Your task to perform on an android device: Open Google Image 0: 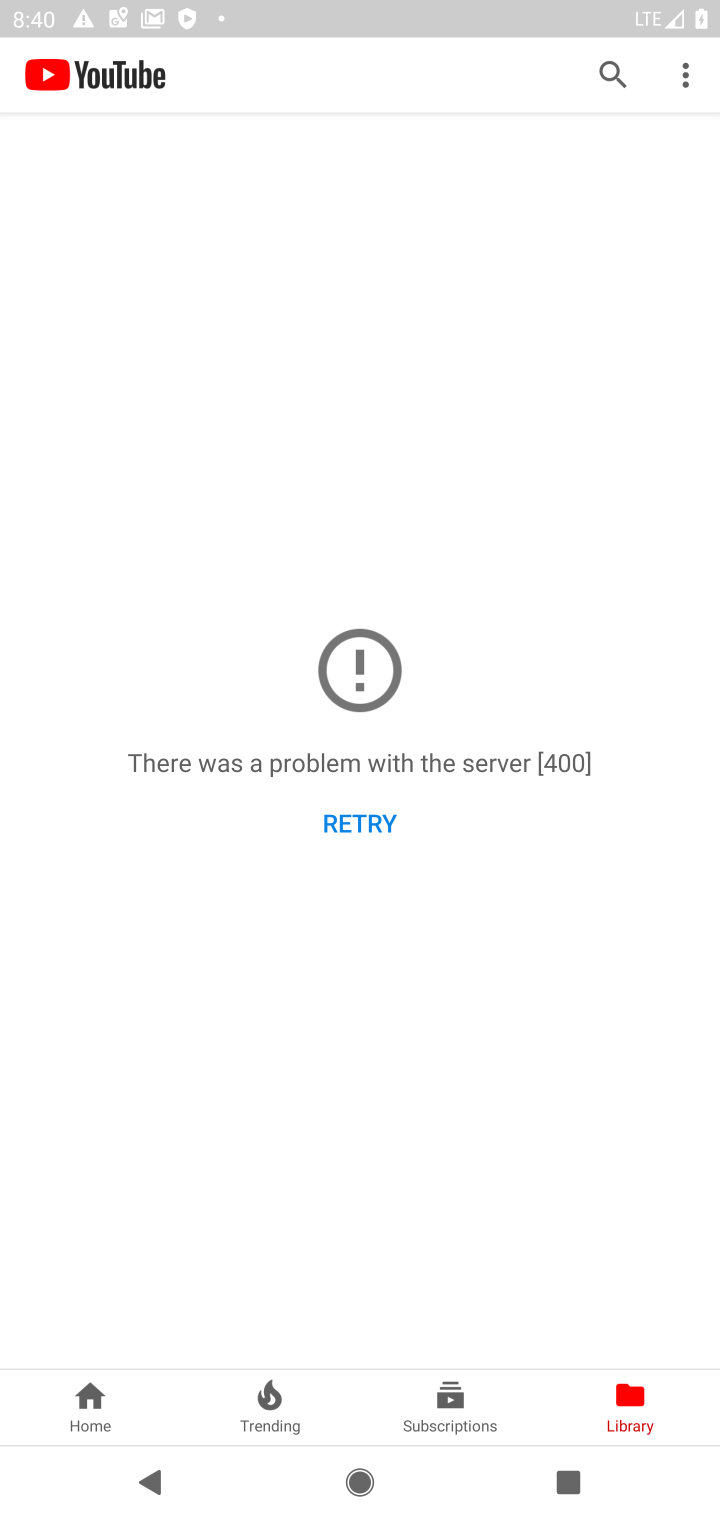
Step 0: press home button
Your task to perform on an android device: Open Google Image 1: 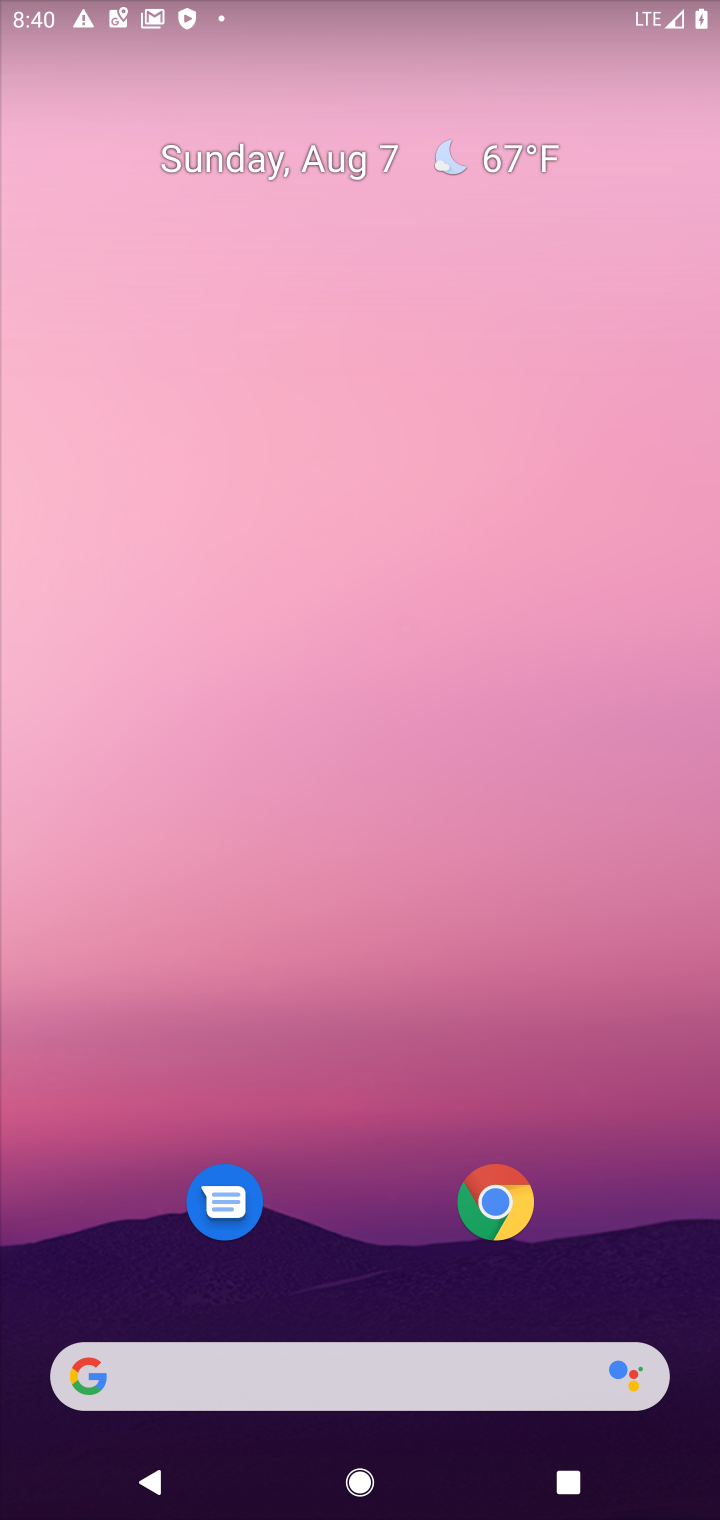
Step 1: drag from (359, 1302) to (347, 375)
Your task to perform on an android device: Open Google Image 2: 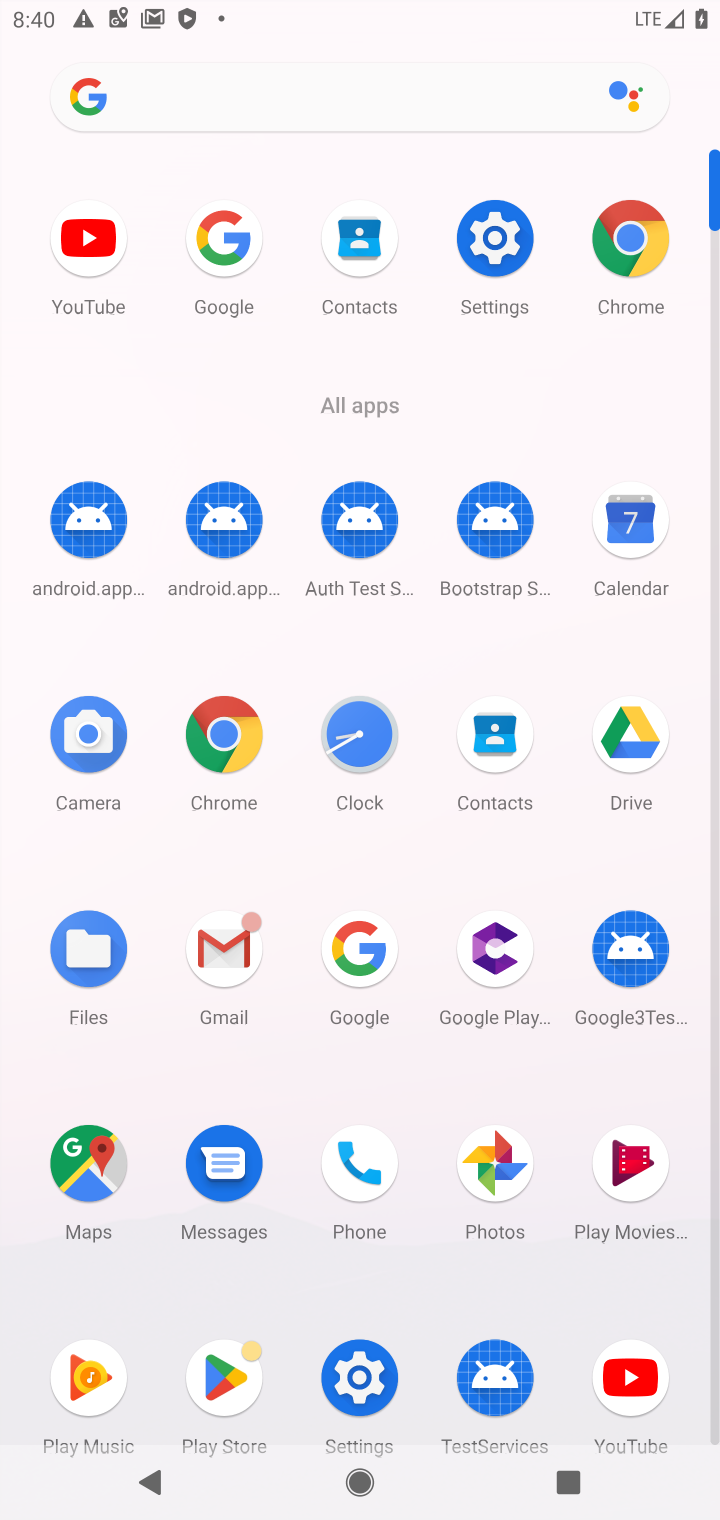
Step 2: click (350, 954)
Your task to perform on an android device: Open Google Image 3: 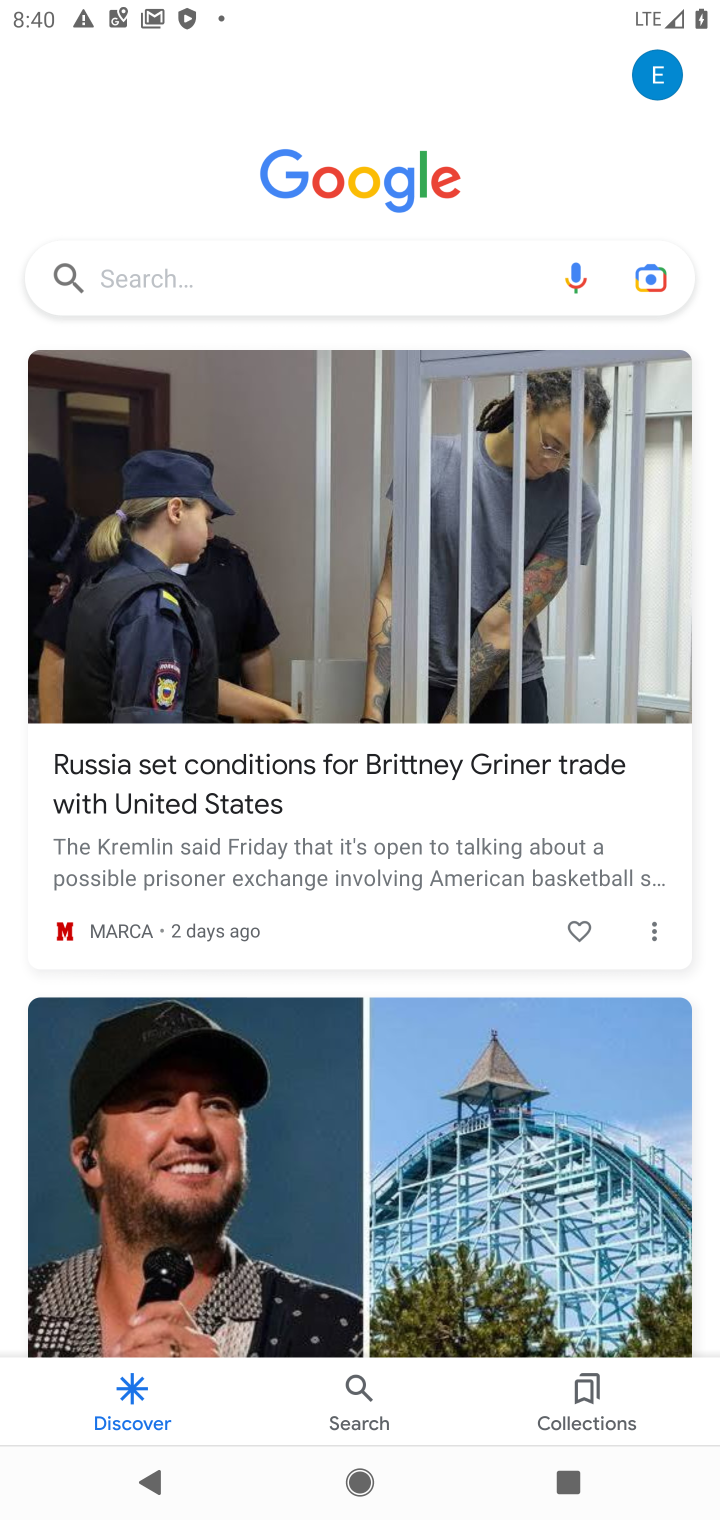
Step 3: task complete